Your task to perform on an android device: Open Reddit.com Image 0: 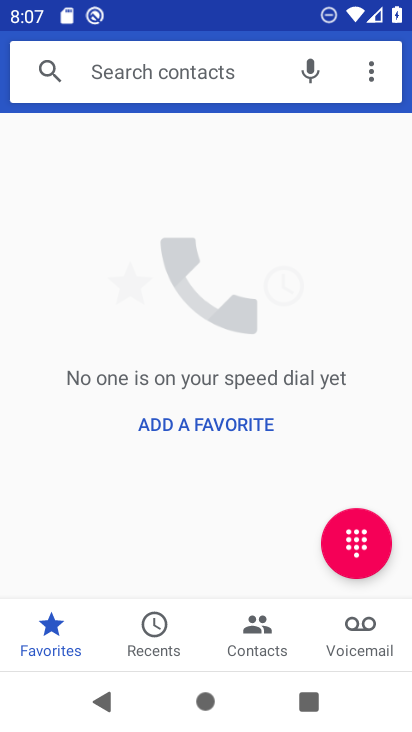
Step 0: press home button
Your task to perform on an android device: Open Reddit.com Image 1: 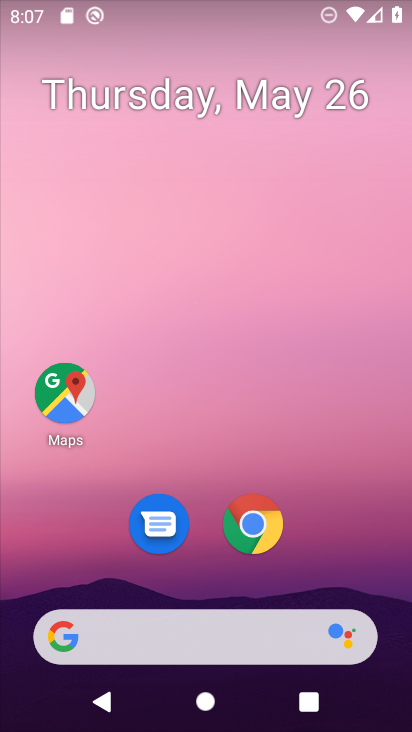
Step 1: click (230, 624)
Your task to perform on an android device: Open Reddit.com Image 2: 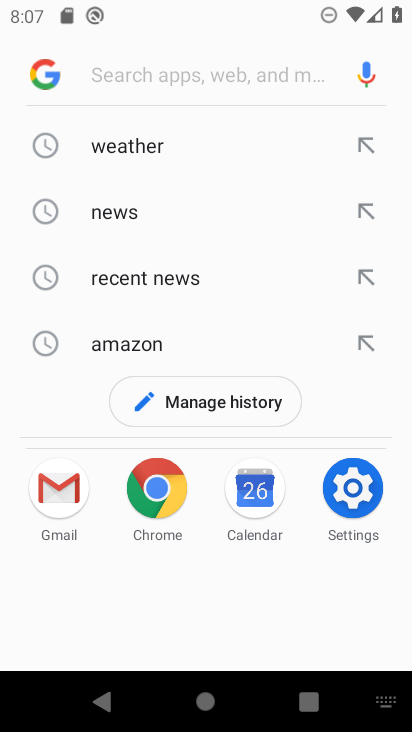
Step 2: type "reddit.com"
Your task to perform on an android device: Open Reddit.com Image 3: 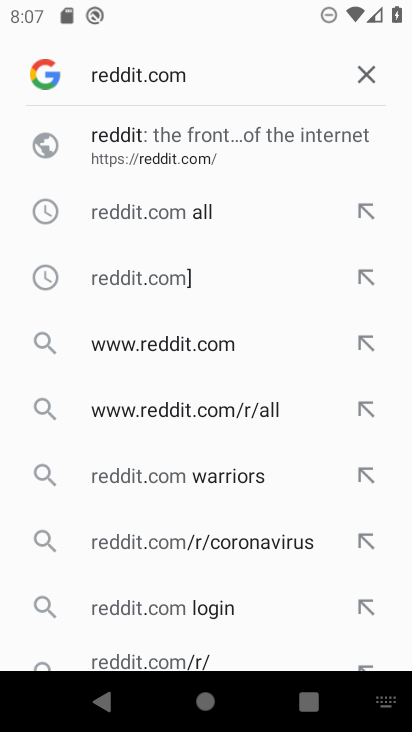
Step 3: click (109, 130)
Your task to perform on an android device: Open Reddit.com Image 4: 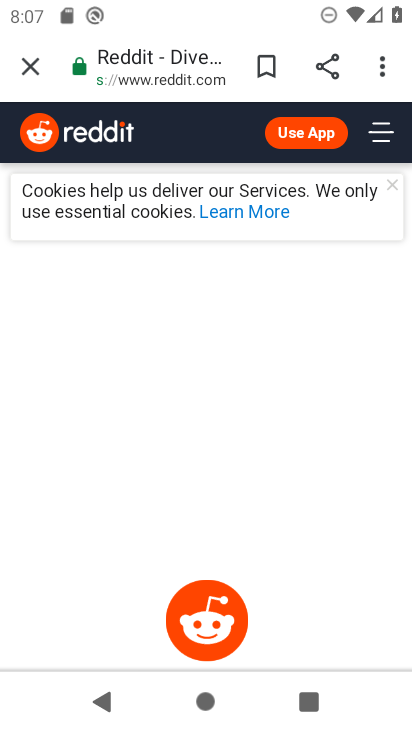
Step 4: task complete